Your task to perform on an android device: uninstall "Google Docs" Image 0: 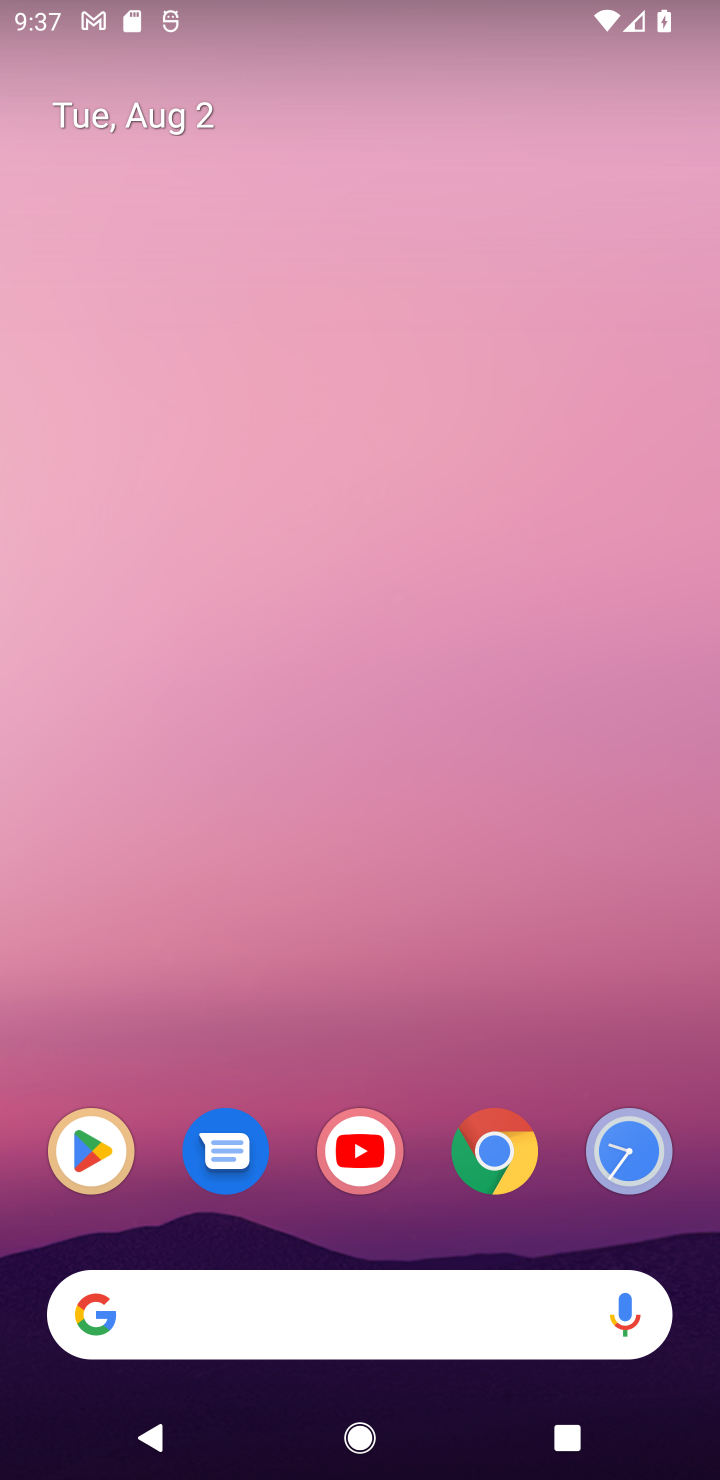
Step 0: drag from (328, 867) to (328, 78)
Your task to perform on an android device: uninstall "Google Docs" Image 1: 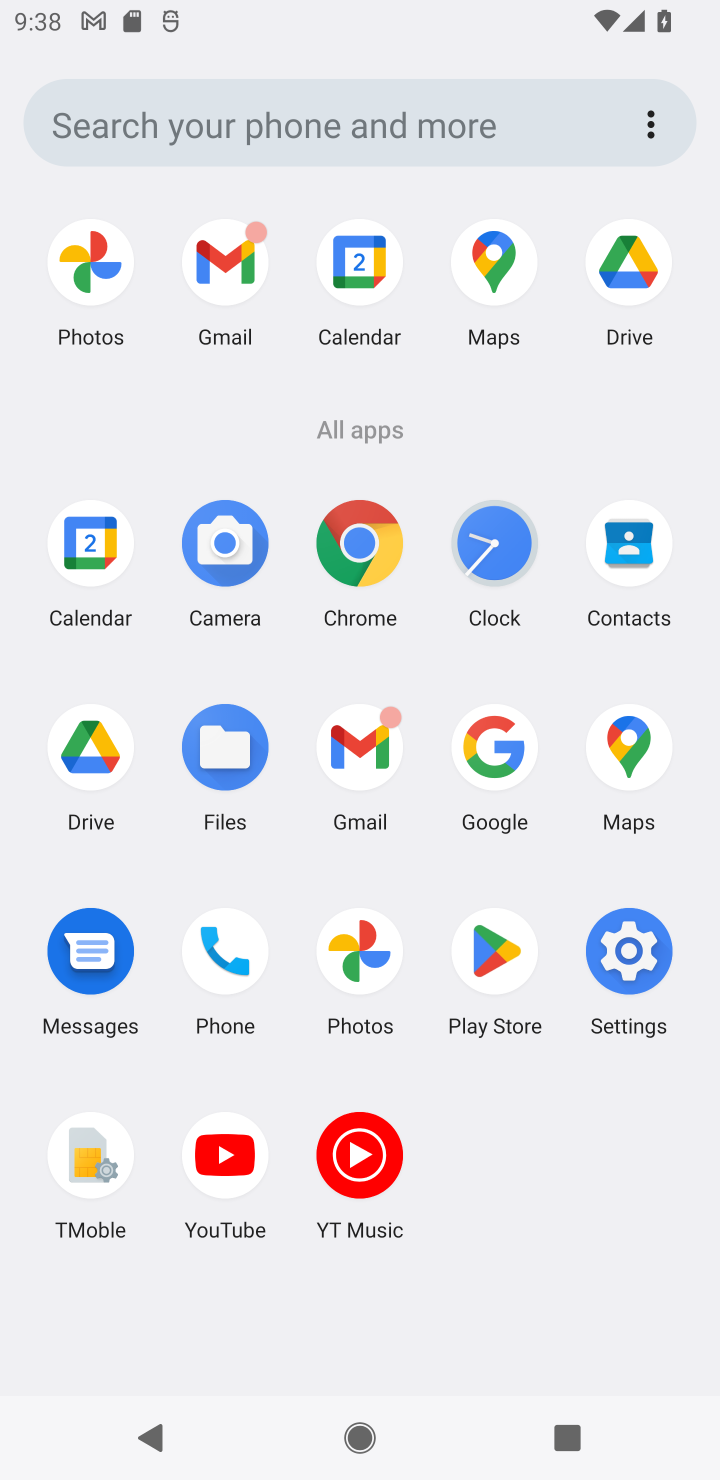
Step 1: click (511, 932)
Your task to perform on an android device: uninstall "Google Docs" Image 2: 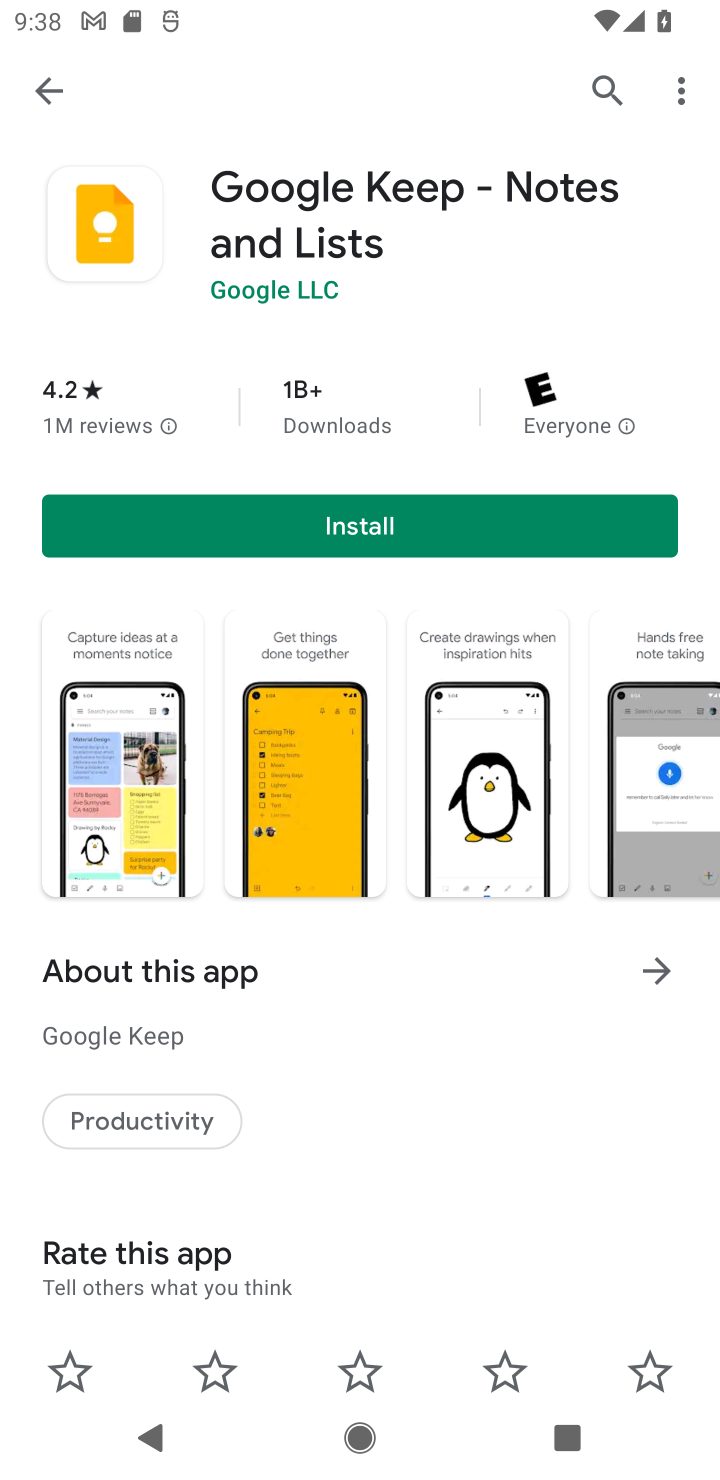
Step 2: click (46, 80)
Your task to perform on an android device: uninstall "Google Docs" Image 3: 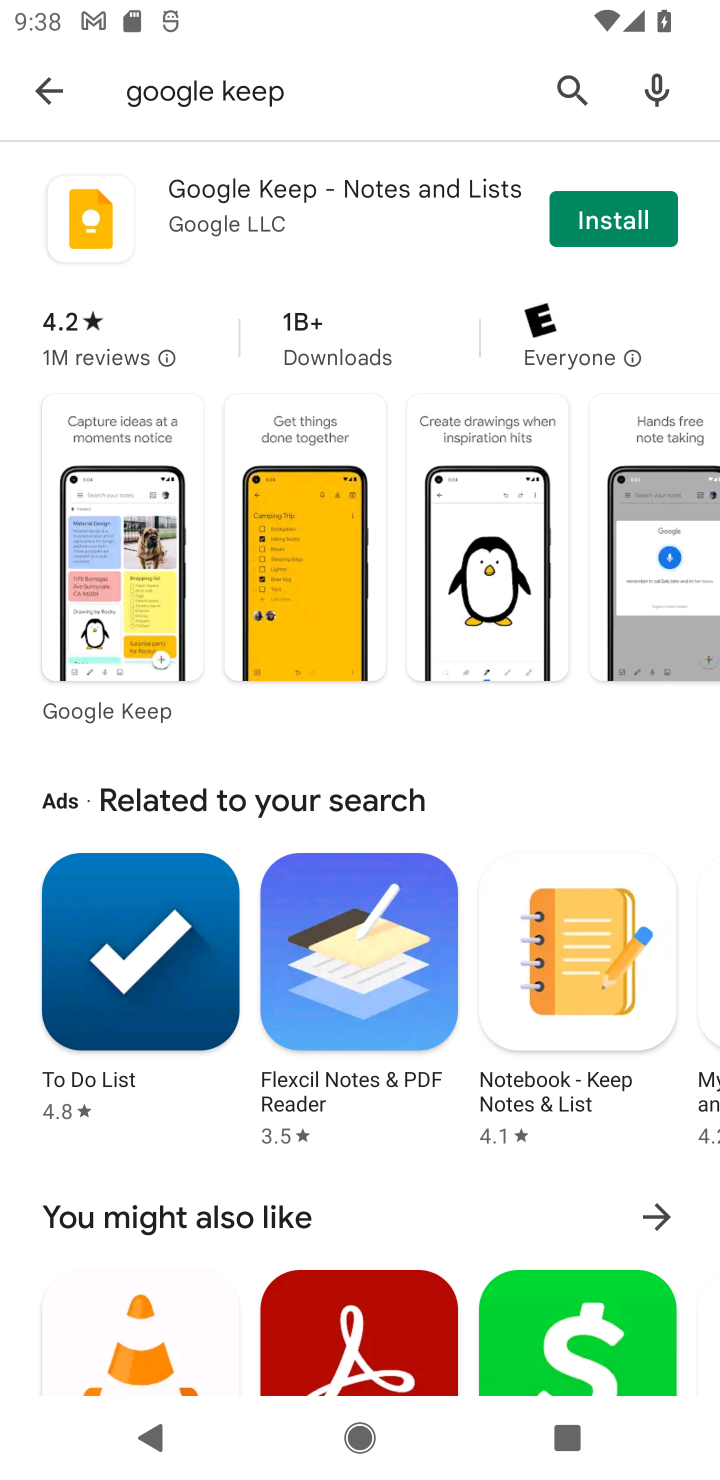
Step 3: click (34, 89)
Your task to perform on an android device: uninstall "Google Docs" Image 4: 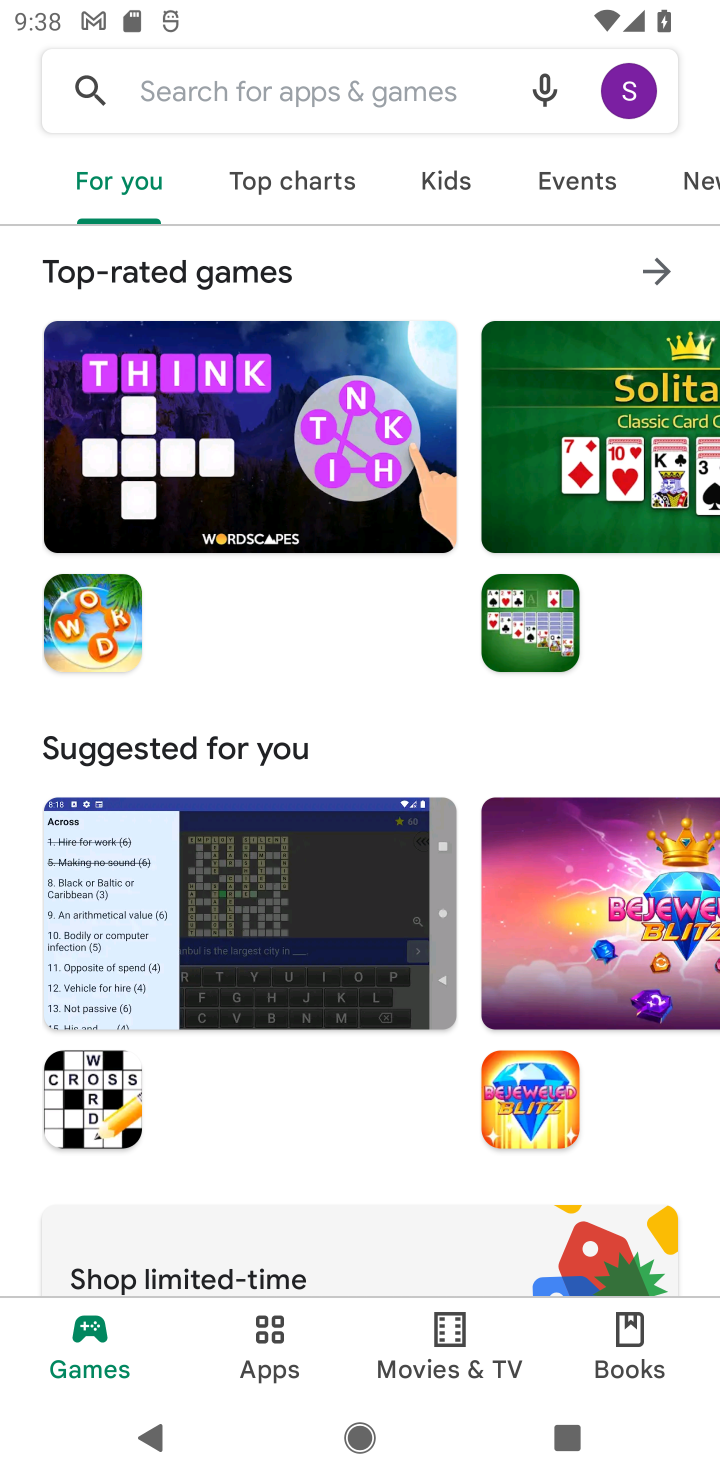
Step 4: click (186, 117)
Your task to perform on an android device: uninstall "Google Docs" Image 5: 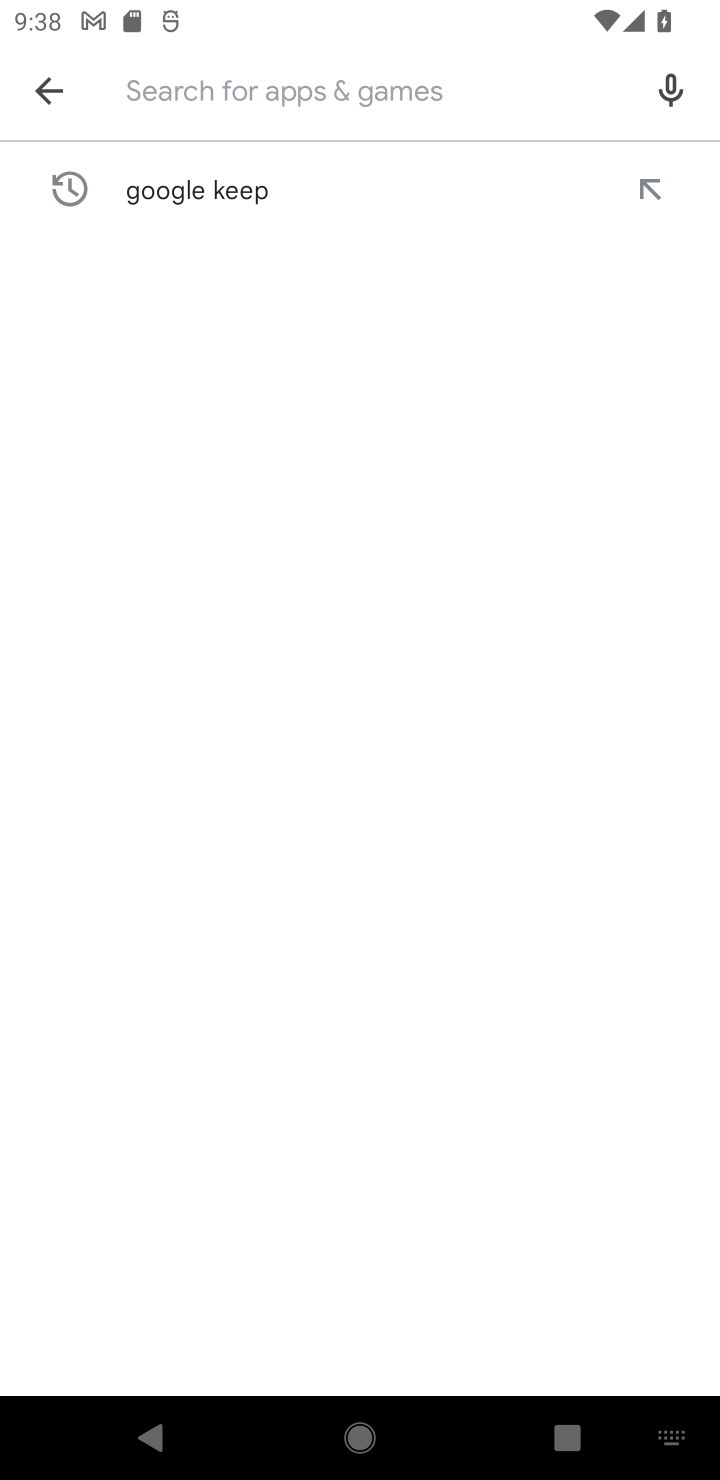
Step 5: type "Google Docs"
Your task to perform on an android device: uninstall "Google Docs" Image 6: 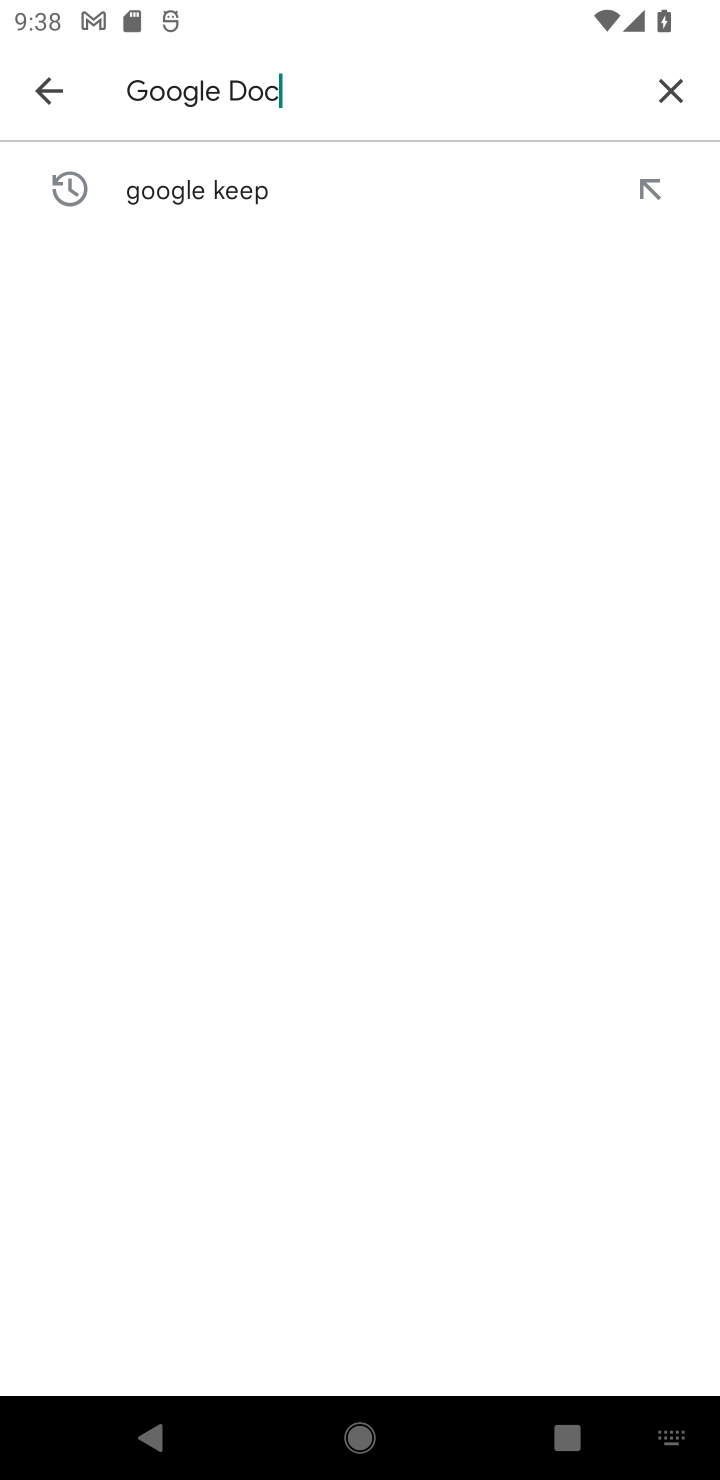
Step 6: type ""
Your task to perform on an android device: uninstall "Google Docs" Image 7: 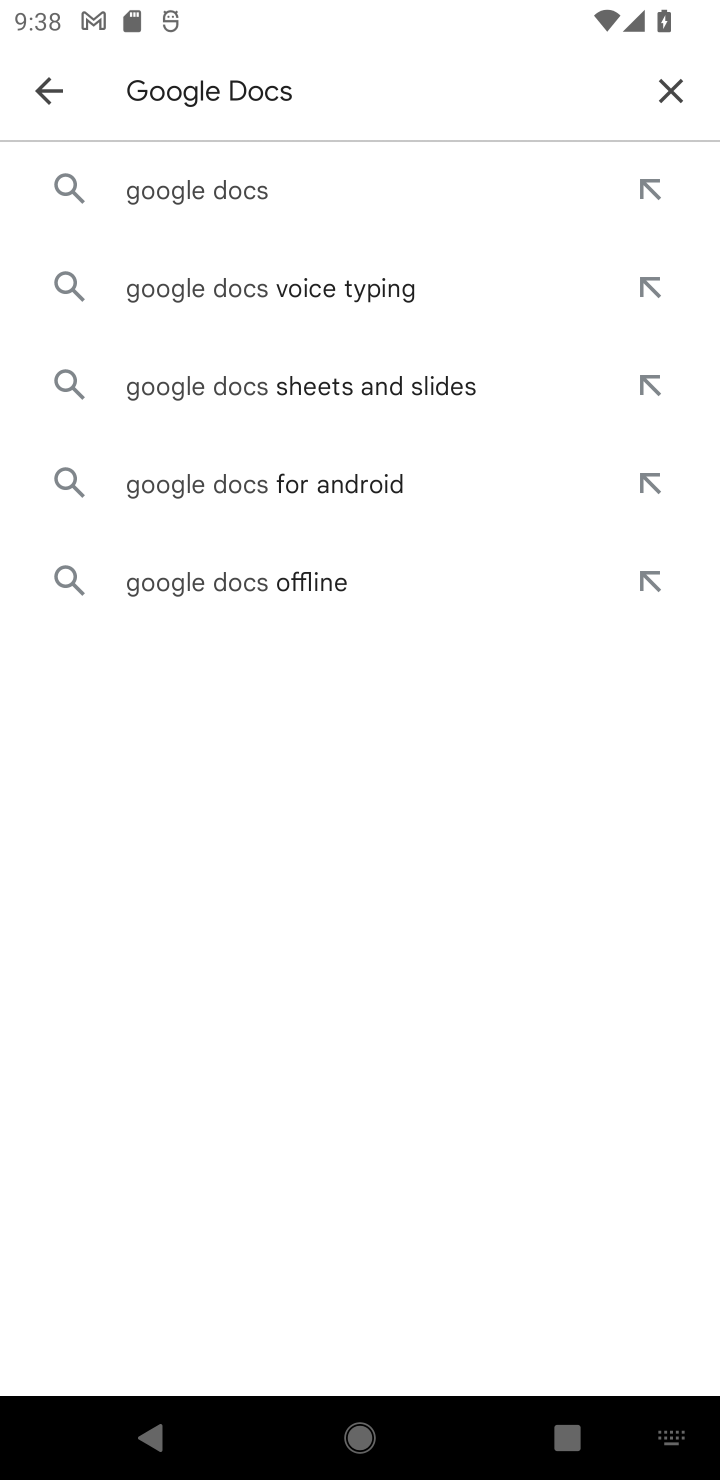
Step 7: click (243, 193)
Your task to perform on an android device: uninstall "Google Docs" Image 8: 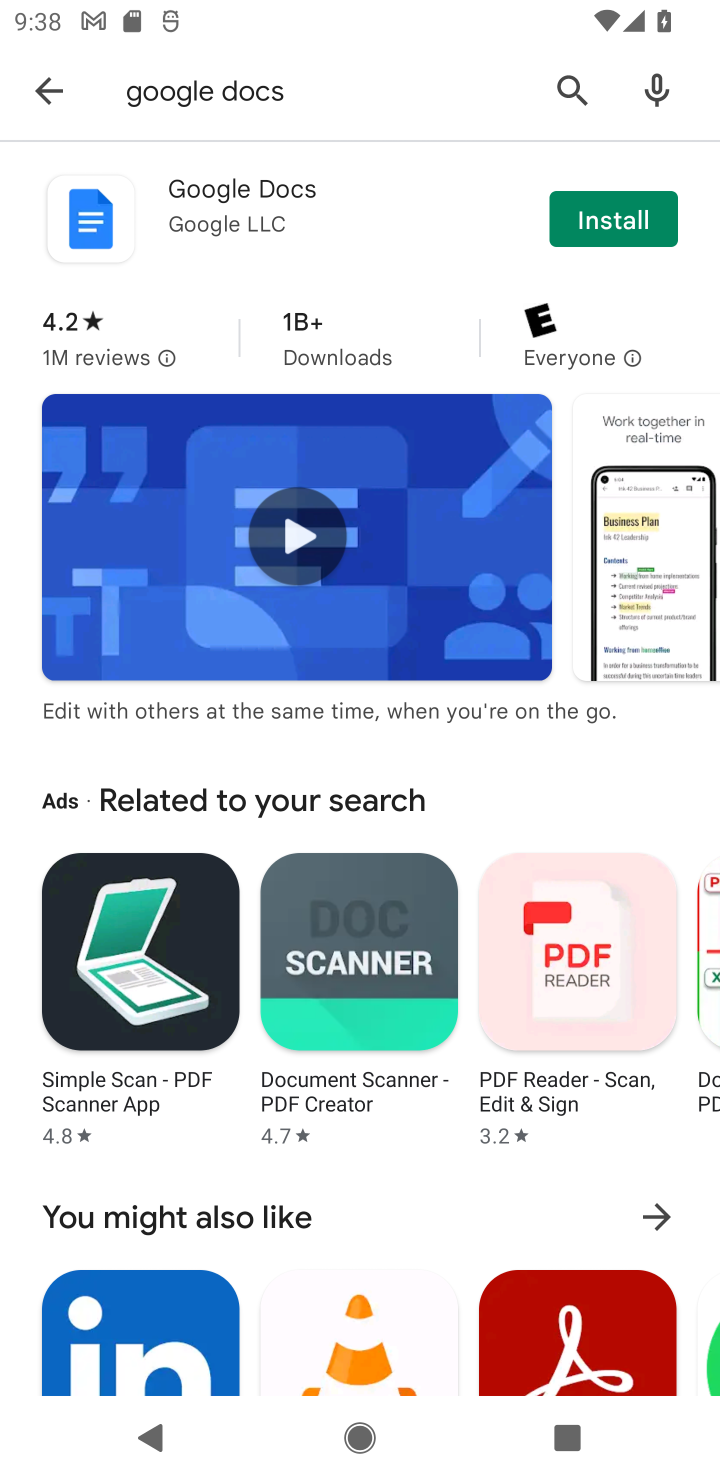
Step 8: click (250, 211)
Your task to perform on an android device: uninstall "Google Docs" Image 9: 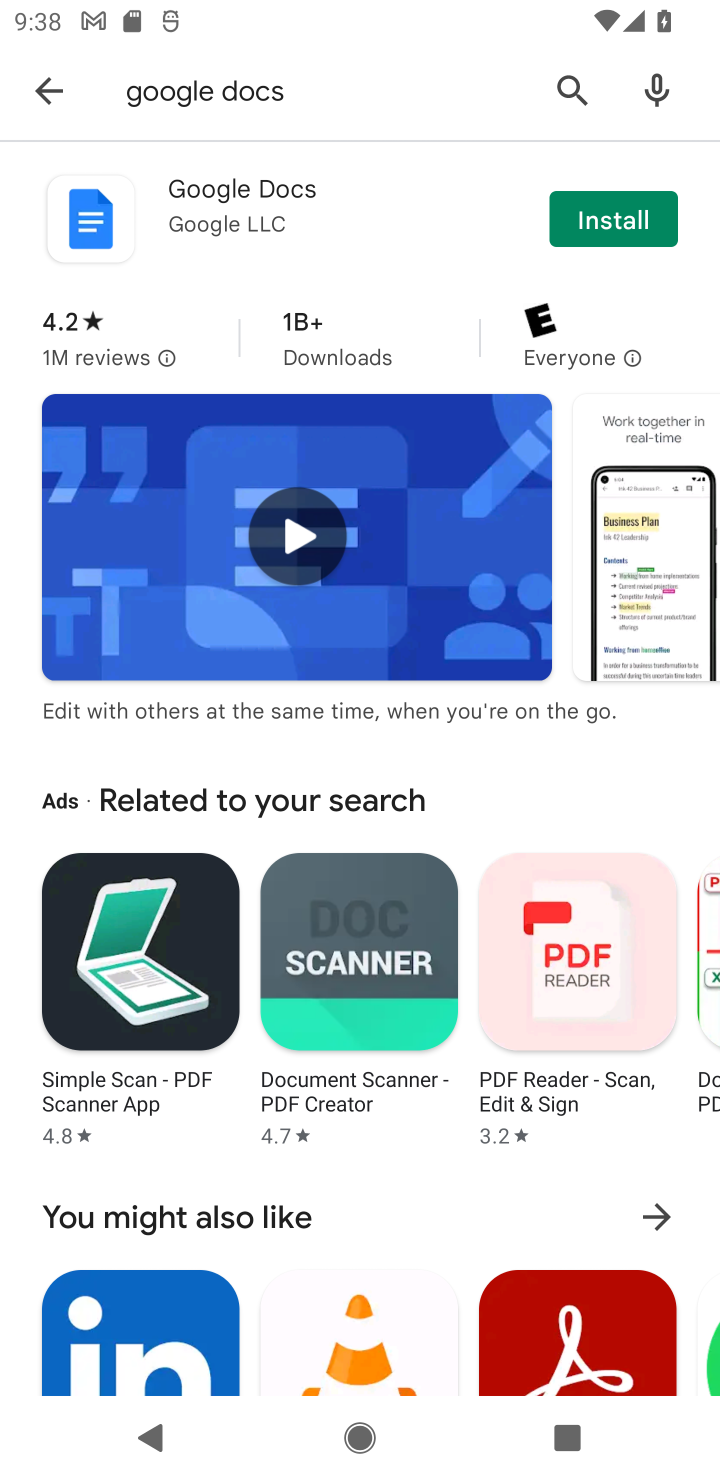
Step 9: task complete